Your task to perform on an android device: Go to internet settings Image 0: 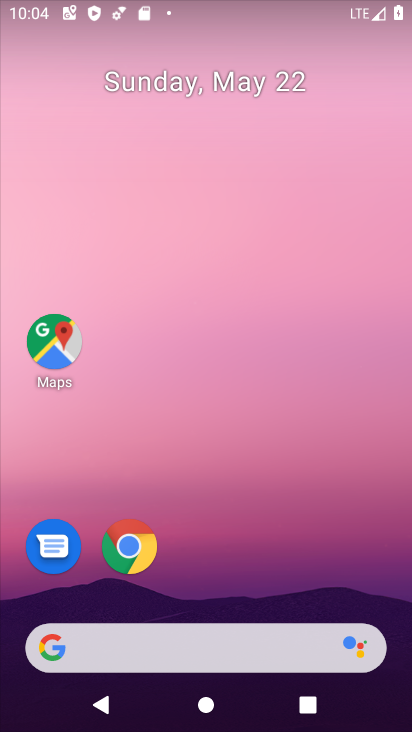
Step 0: drag from (189, 601) to (330, 191)
Your task to perform on an android device: Go to internet settings Image 1: 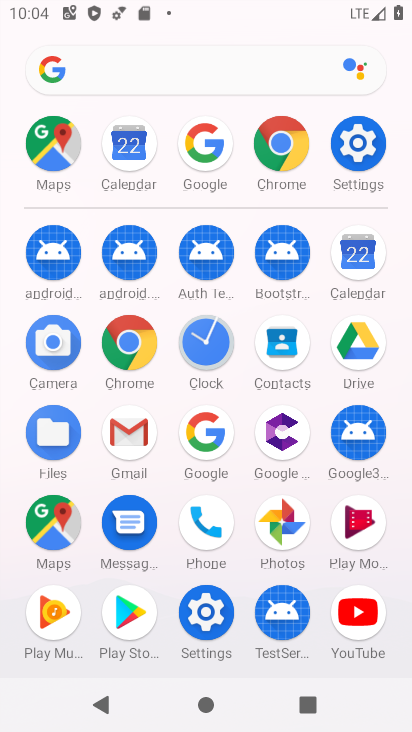
Step 1: click (351, 165)
Your task to perform on an android device: Go to internet settings Image 2: 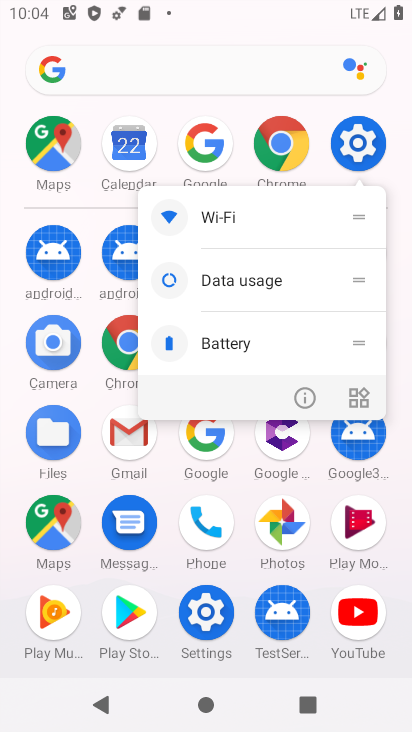
Step 2: click (305, 402)
Your task to perform on an android device: Go to internet settings Image 3: 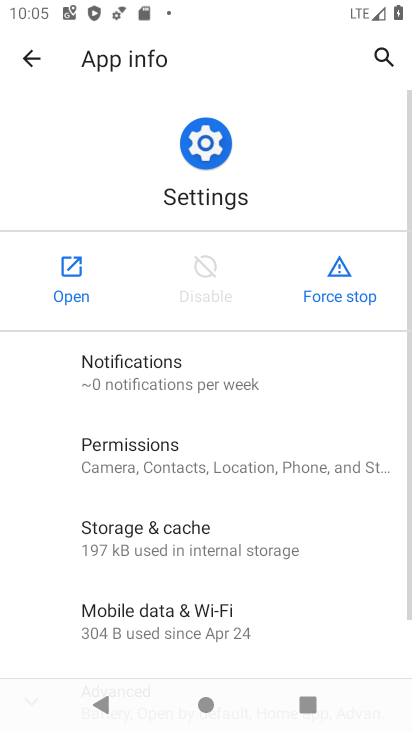
Step 3: click (77, 309)
Your task to perform on an android device: Go to internet settings Image 4: 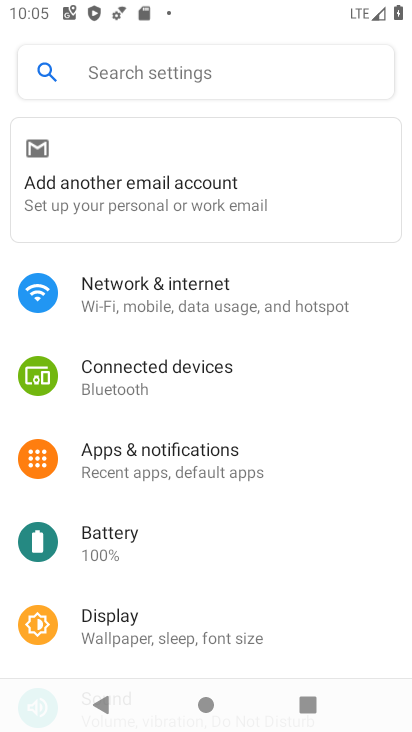
Step 4: click (185, 264)
Your task to perform on an android device: Go to internet settings Image 5: 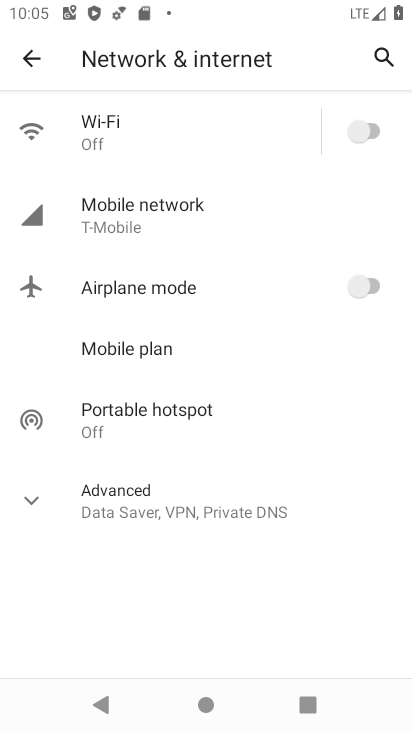
Step 5: task complete